Your task to perform on an android device: add a label to a message in the gmail app Image 0: 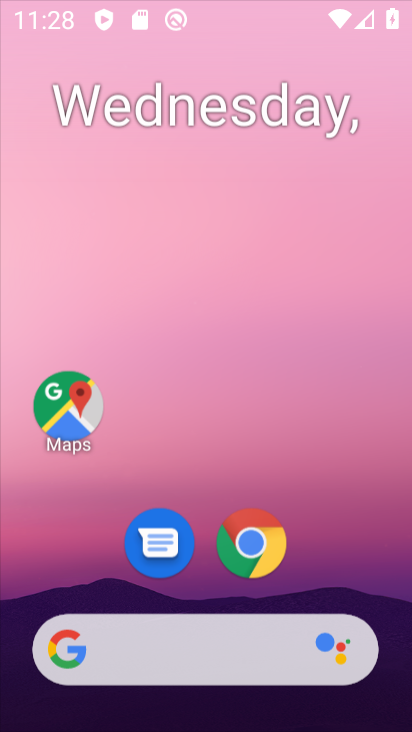
Step 0: click (252, 132)
Your task to perform on an android device: add a label to a message in the gmail app Image 1: 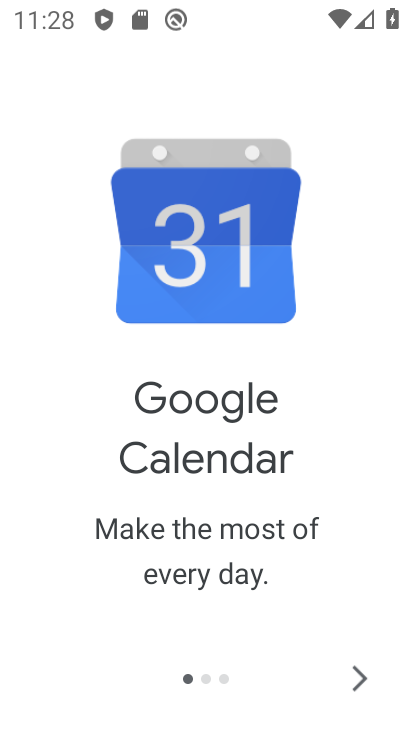
Step 1: click (362, 673)
Your task to perform on an android device: add a label to a message in the gmail app Image 2: 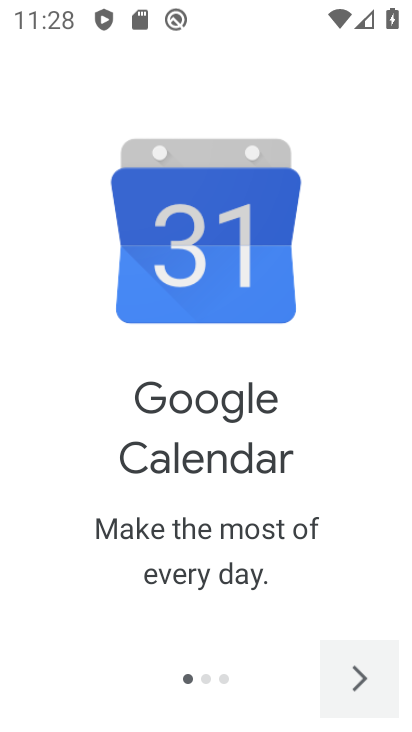
Step 2: click (362, 673)
Your task to perform on an android device: add a label to a message in the gmail app Image 3: 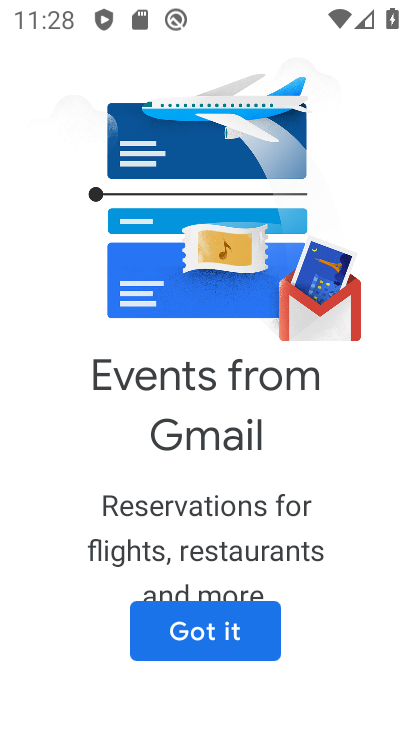
Step 3: click (242, 629)
Your task to perform on an android device: add a label to a message in the gmail app Image 4: 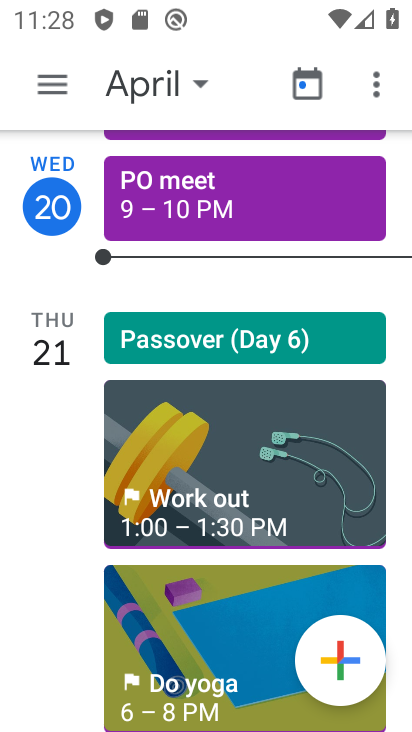
Step 4: press home button
Your task to perform on an android device: add a label to a message in the gmail app Image 5: 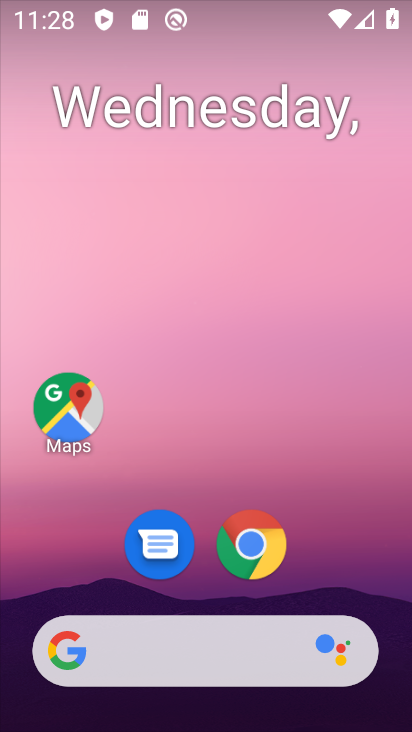
Step 5: drag from (342, 553) to (225, 133)
Your task to perform on an android device: add a label to a message in the gmail app Image 6: 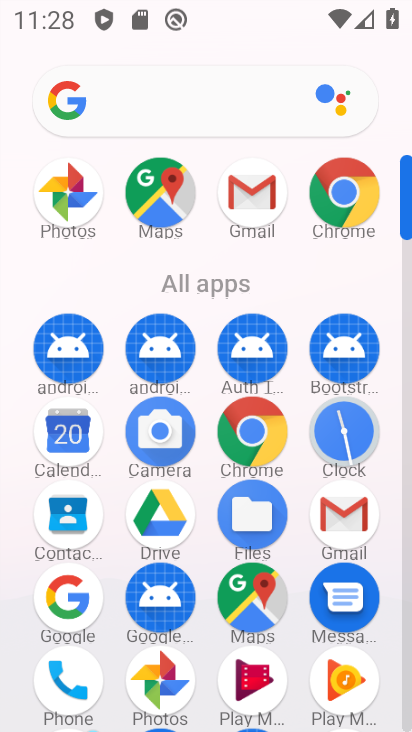
Step 6: click (254, 200)
Your task to perform on an android device: add a label to a message in the gmail app Image 7: 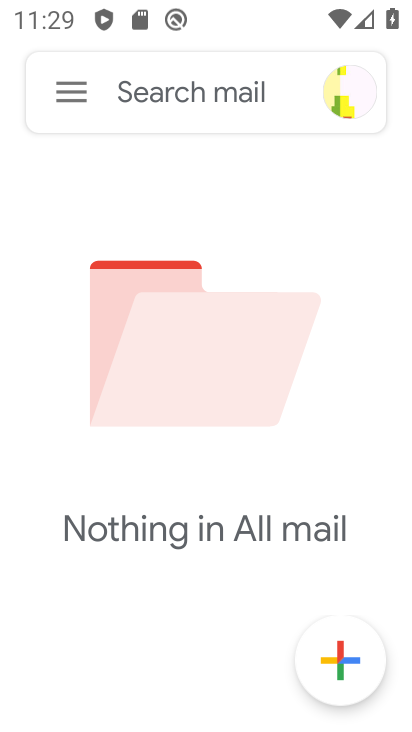
Step 7: task complete